Your task to perform on an android device: Open the map Image 0: 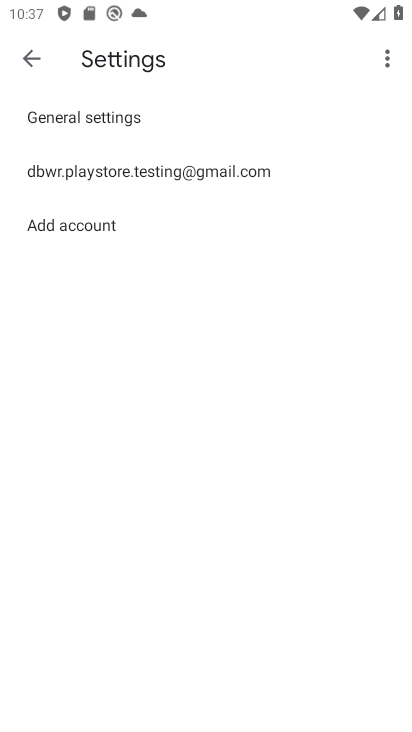
Step 0: press home button
Your task to perform on an android device: Open the map Image 1: 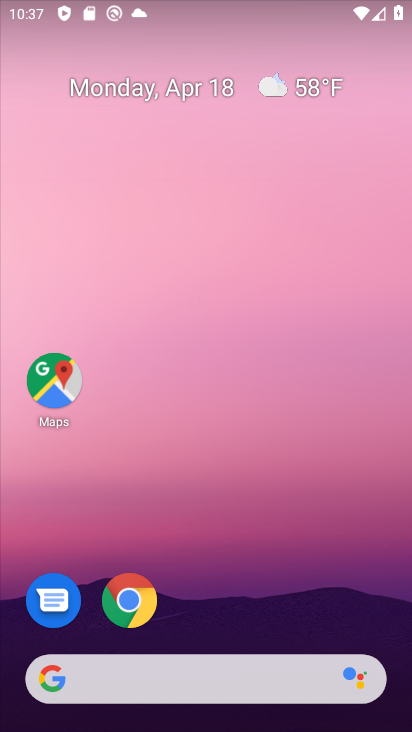
Step 1: click (56, 375)
Your task to perform on an android device: Open the map Image 2: 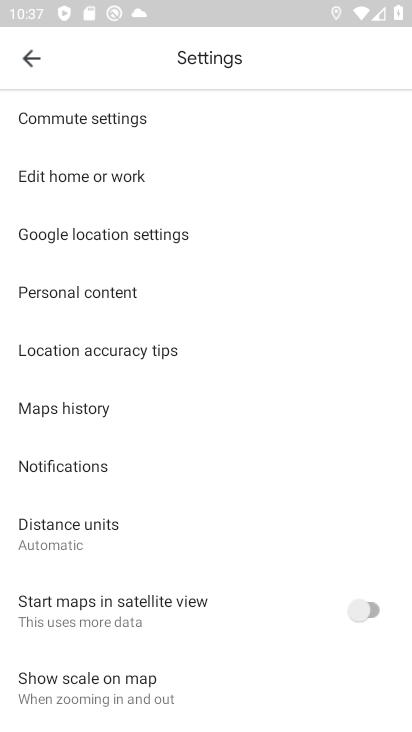
Step 2: click (19, 53)
Your task to perform on an android device: Open the map Image 3: 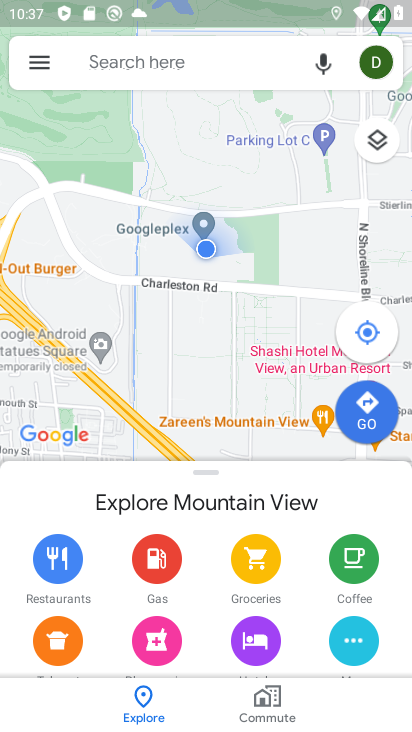
Step 3: task complete